Your task to perform on an android device: turn on translation in the chrome app Image 0: 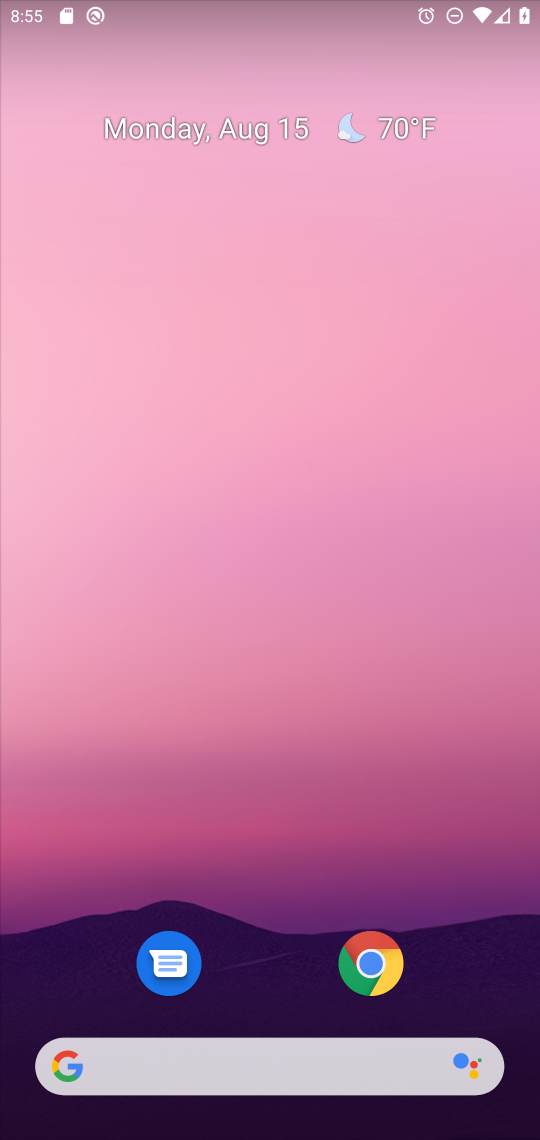
Step 0: click (380, 976)
Your task to perform on an android device: turn on translation in the chrome app Image 1: 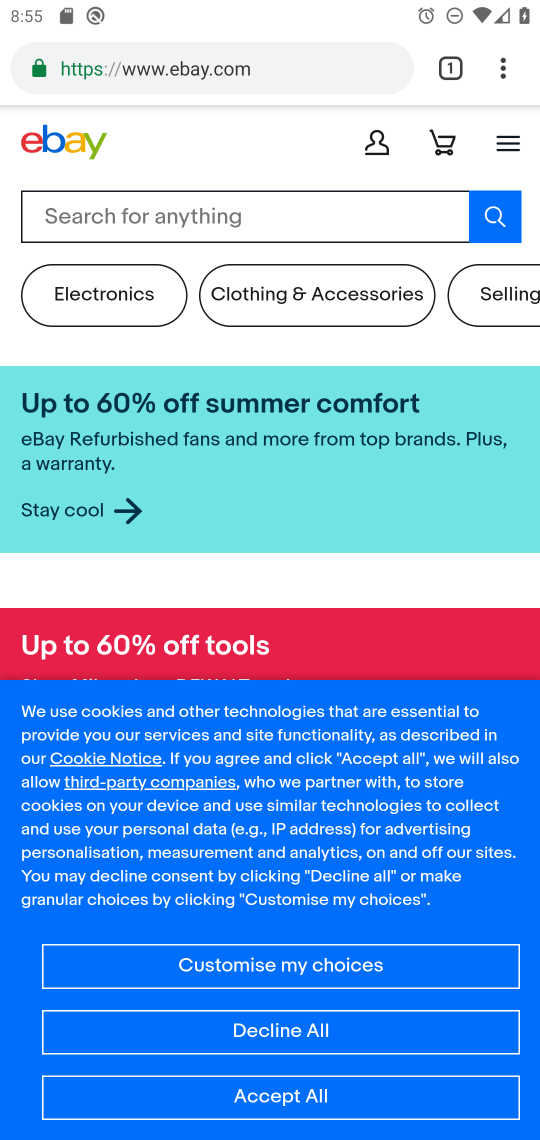
Step 1: click (492, 71)
Your task to perform on an android device: turn on translation in the chrome app Image 2: 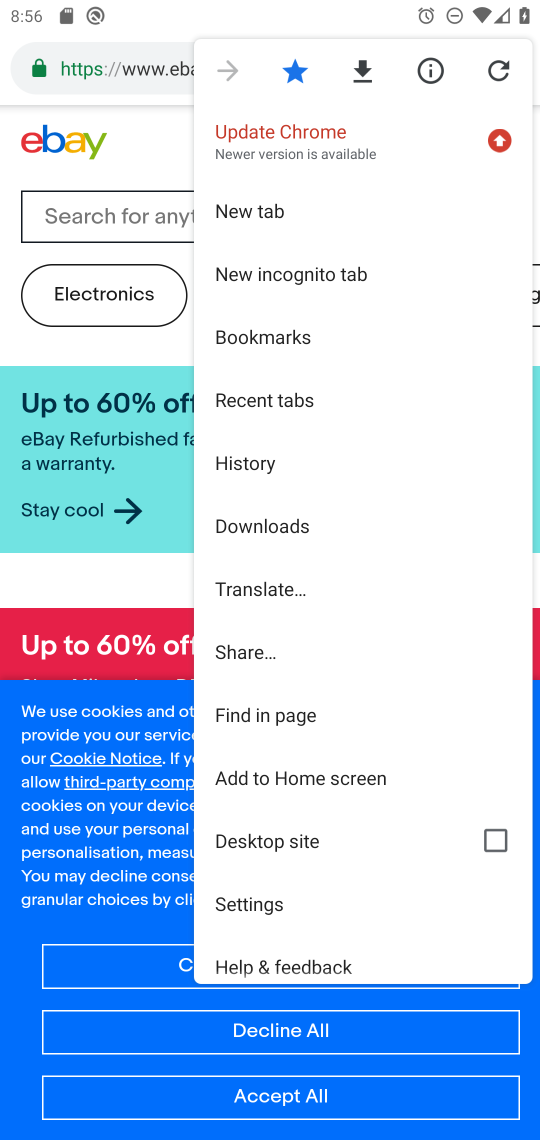
Step 2: click (260, 912)
Your task to perform on an android device: turn on translation in the chrome app Image 3: 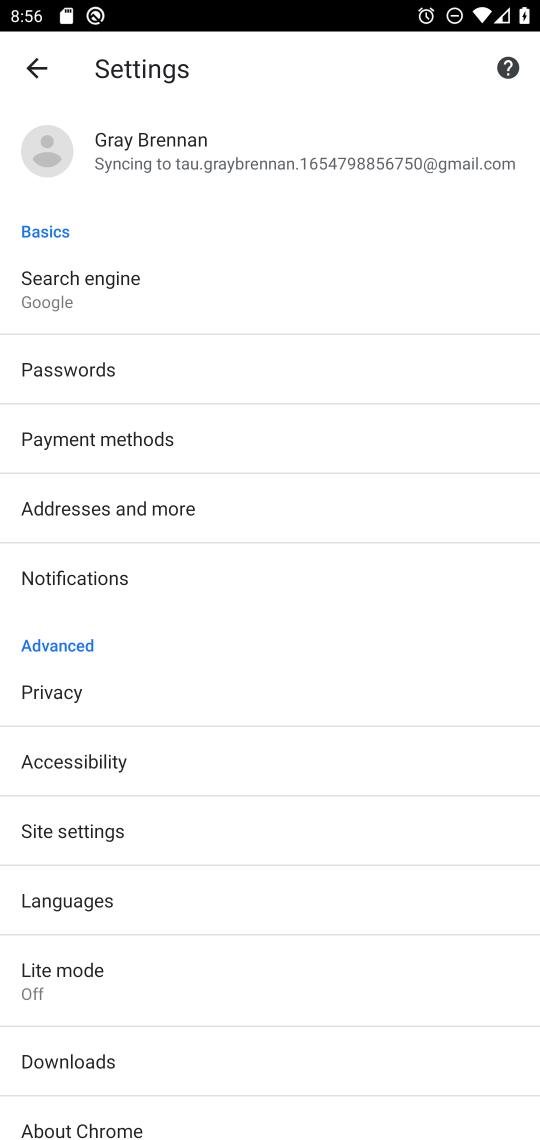
Step 3: click (61, 895)
Your task to perform on an android device: turn on translation in the chrome app Image 4: 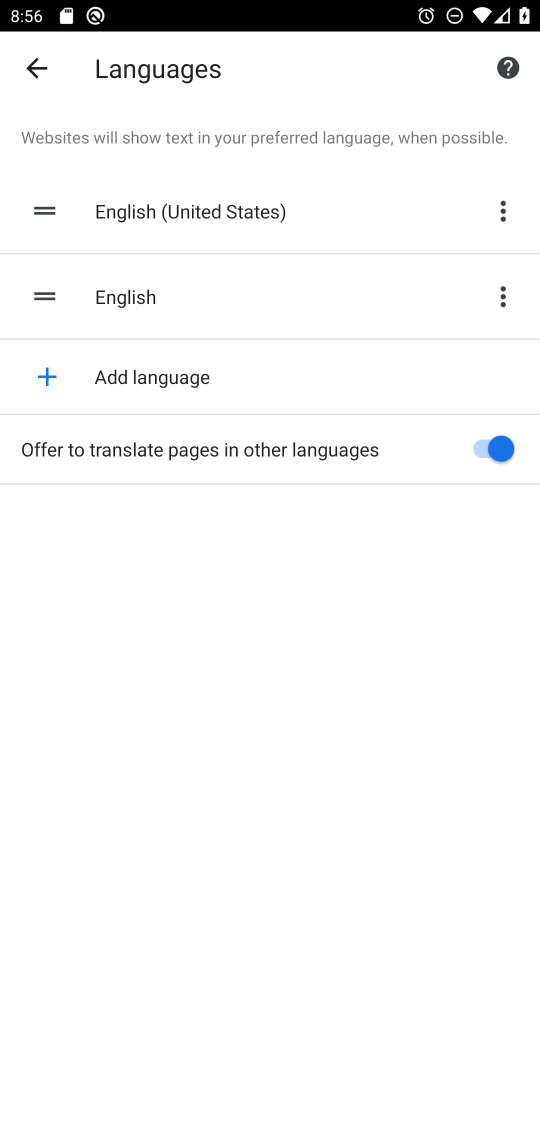
Step 4: task complete